Your task to perform on an android device: create a new album in the google photos Image 0: 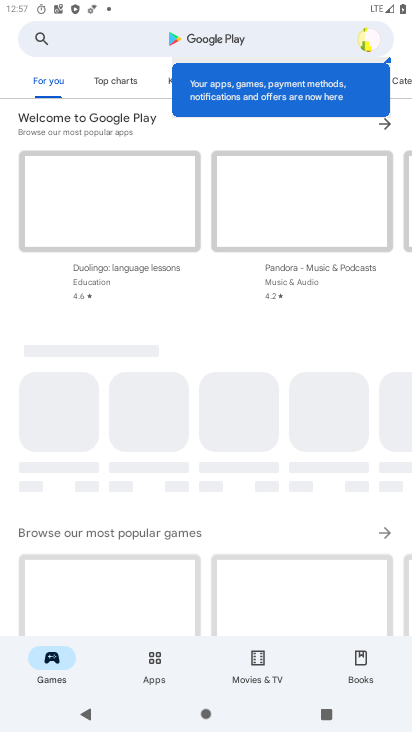
Step 0: press home button
Your task to perform on an android device: create a new album in the google photos Image 1: 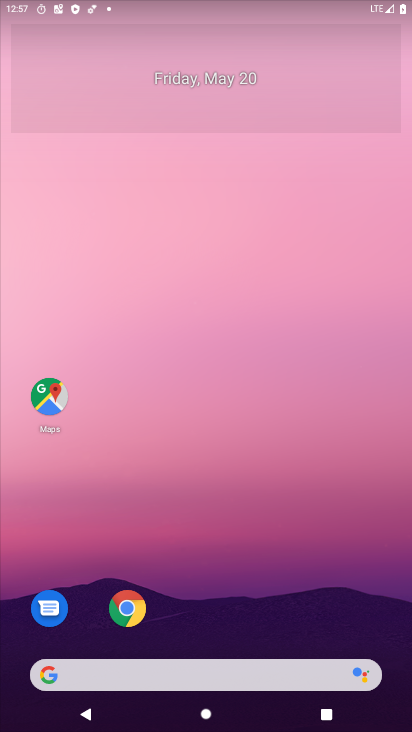
Step 1: drag from (367, 611) to (312, 85)
Your task to perform on an android device: create a new album in the google photos Image 2: 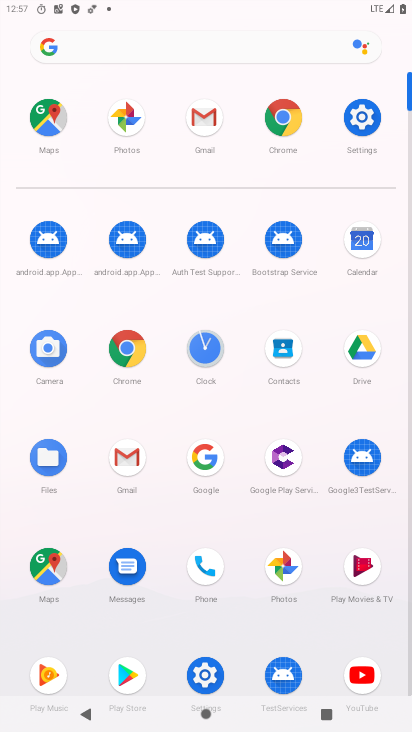
Step 2: click (294, 571)
Your task to perform on an android device: create a new album in the google photos Image 3: 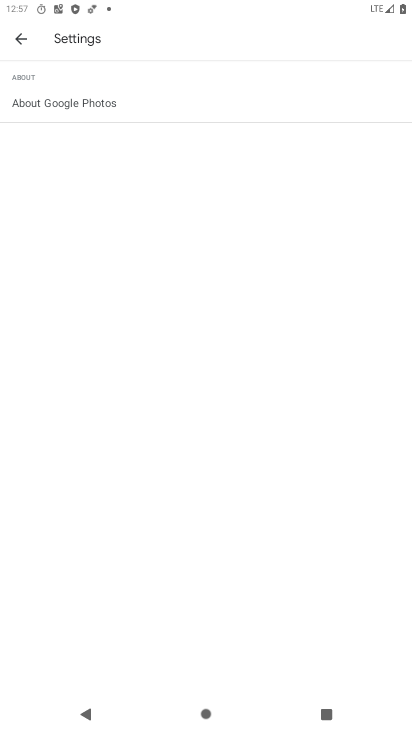
Step 3: click (23, 40)
Your task to perform on an android device: create a new album in the google photos Image 4: 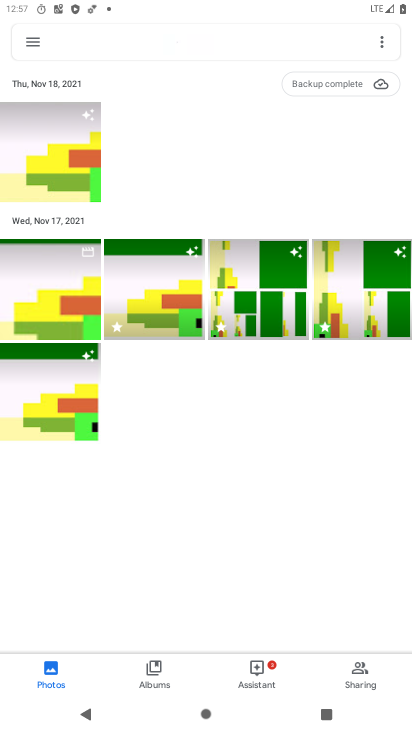
Step 4: click (154, 673)
Your task to perform on an android device: create a new album in the google photos Image 5: 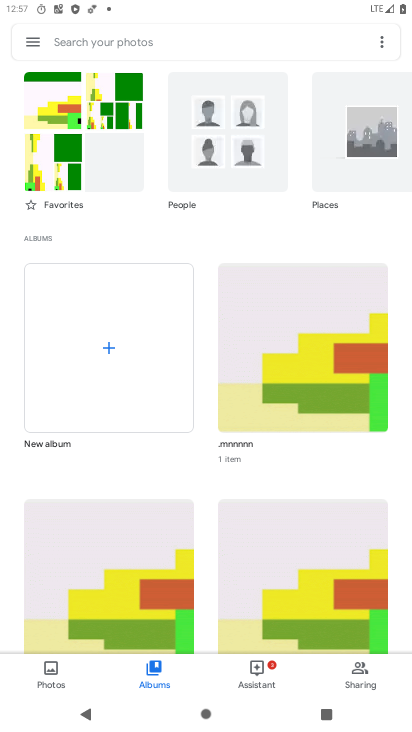
Step 5: click (108, 350)
Your task to perform on an android device: create a new album in the google photos Image 6: 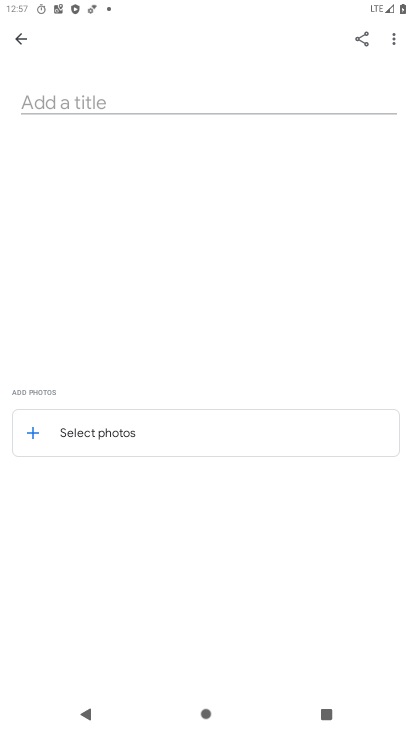
Step 6: click (68, 98)
Your task to perform on an android device: create a new album in the google photos Image 7: 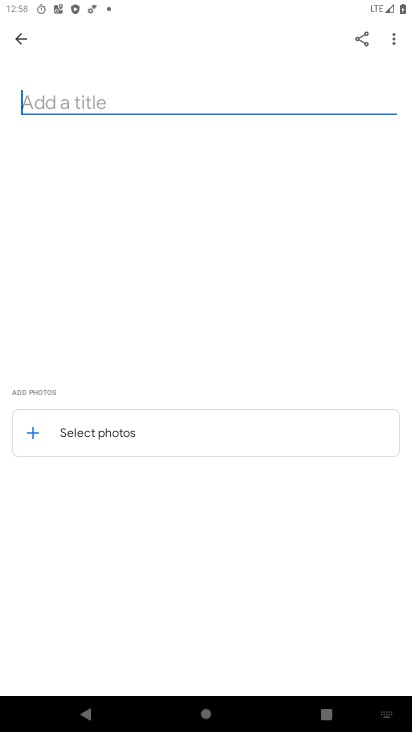
Step 7: type "eijrio"
Your task to perform on an android device: create a new album in the google photos Image 8: 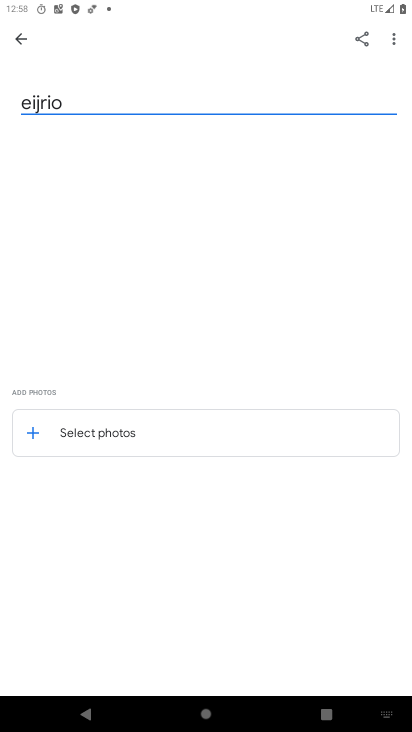
Step 8: click (34, 433)
Your task to perform on an android device: create a new album in the google photos Image 9: 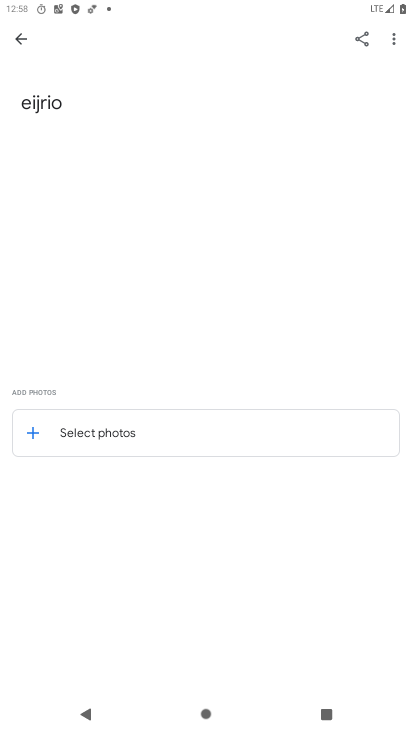
Step 9: click (57, 422)
Your task to perform on an android device: create a new album in the google photos Image 10: 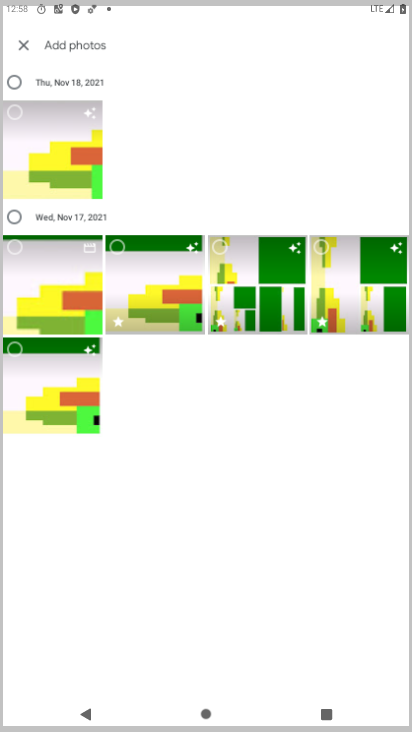
Step 10: click (42, 428)
Your task to perform on an android device: create a new album in the google photos Image 11: 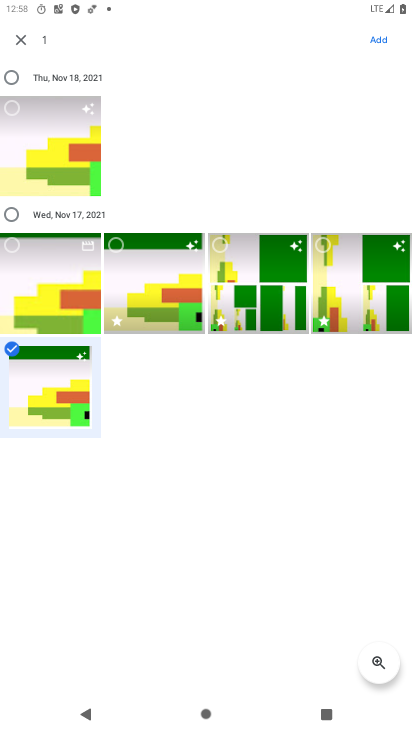
Step 11: click (376, 36)
Your task to perform on an android device: create a new album in the google photos Image 12: 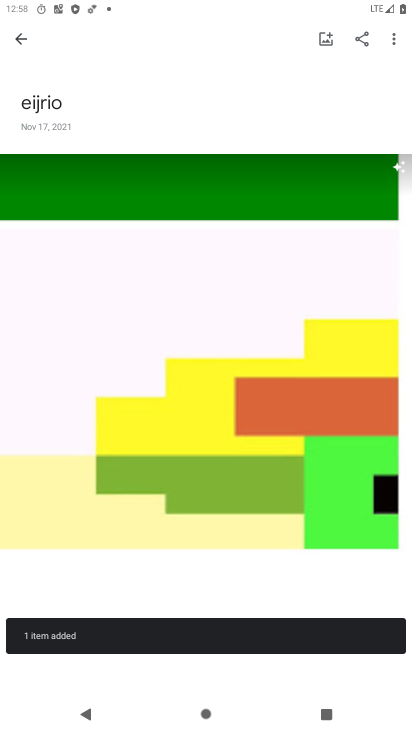
Step 12: task complete